Your task to perform on an android device: Go to network settings Image 0: 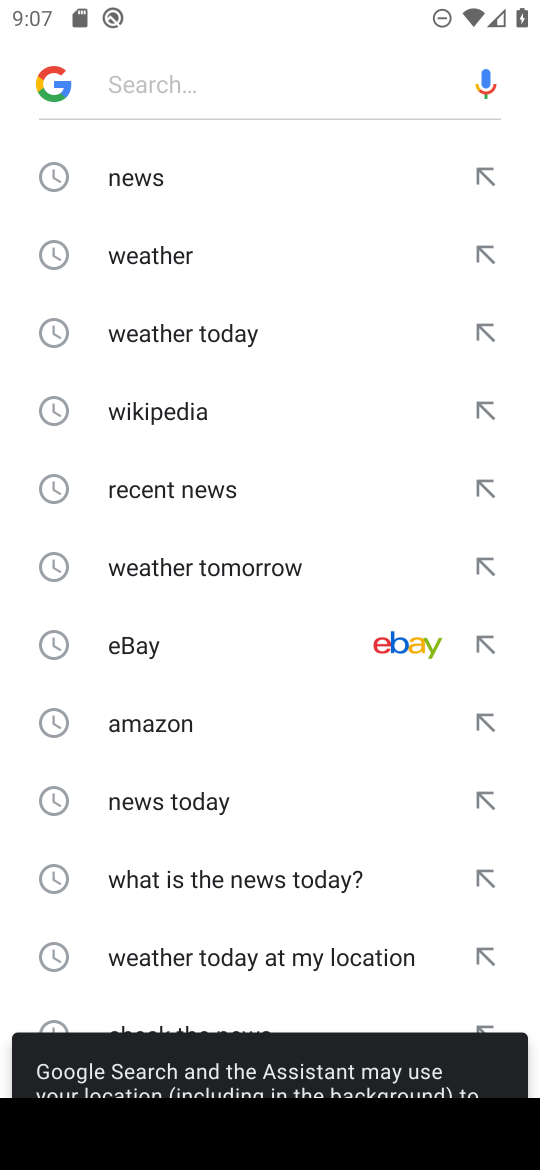
Step 0: press home button
Your task to perform on an android device: Go to network settings Image 1: 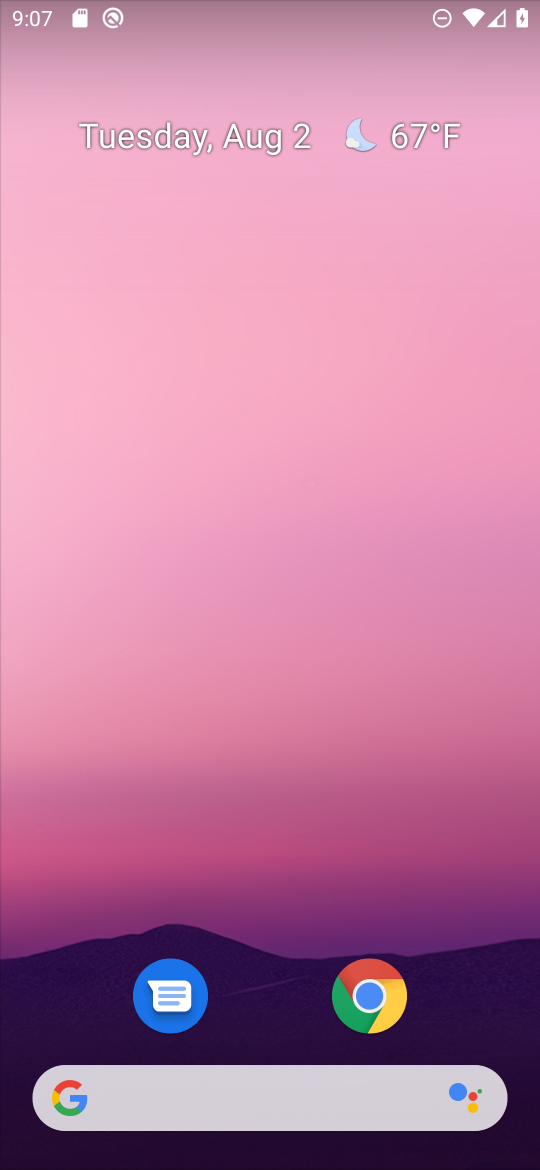
Step 1: drag from (289, 1024) to (119, 47)
Your task to perform on an android device: Go to network settings Image 2: 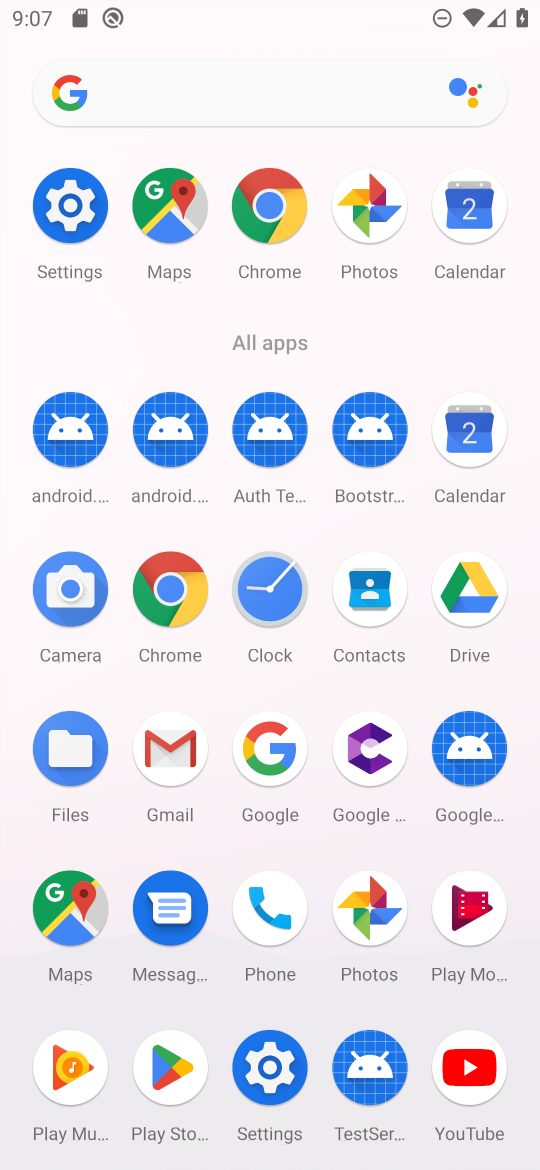
Step 2: click (273, 1066)
Your task to perform on an android device: Go to network settings Image 3: 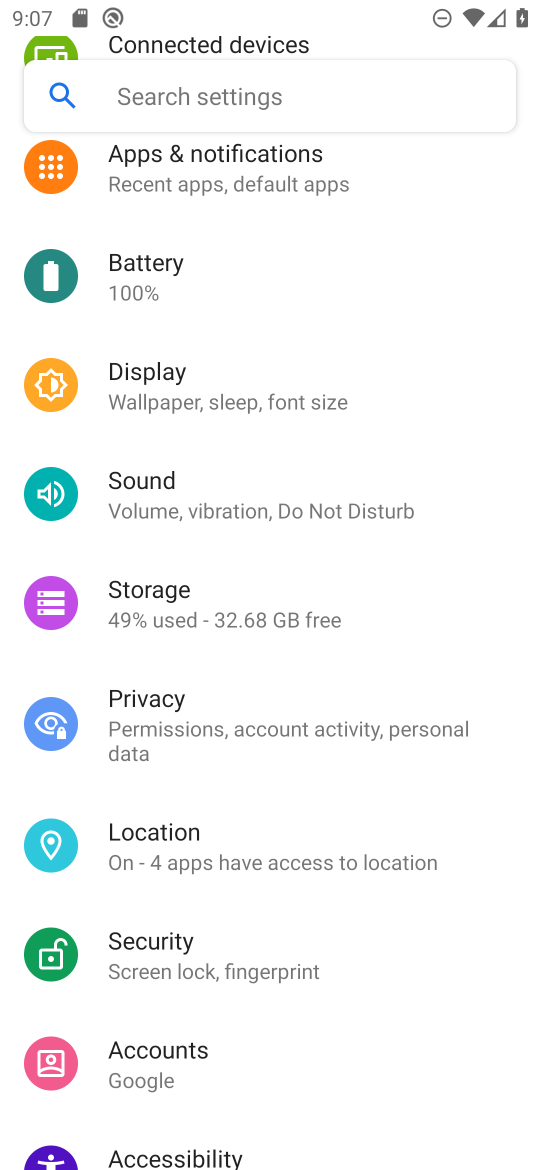
Step 3: drag from (178, 243) to (193, 878)
Your task to perform on an android device: Go to network settings Image 4: 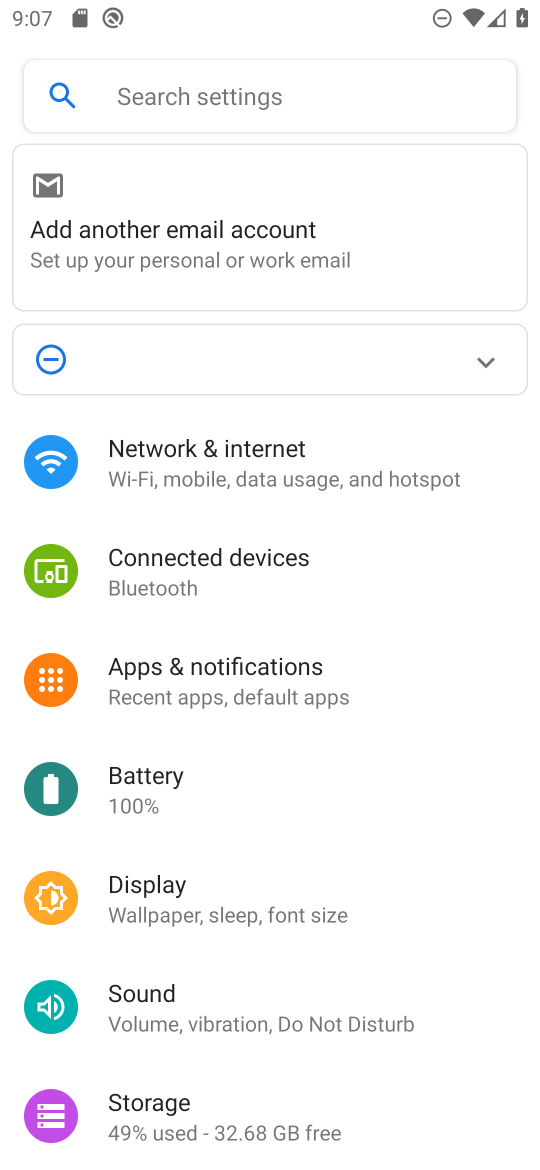
Step 4: click (218, 454)
Your task to perform on an android device: Go to network settings Image 5: 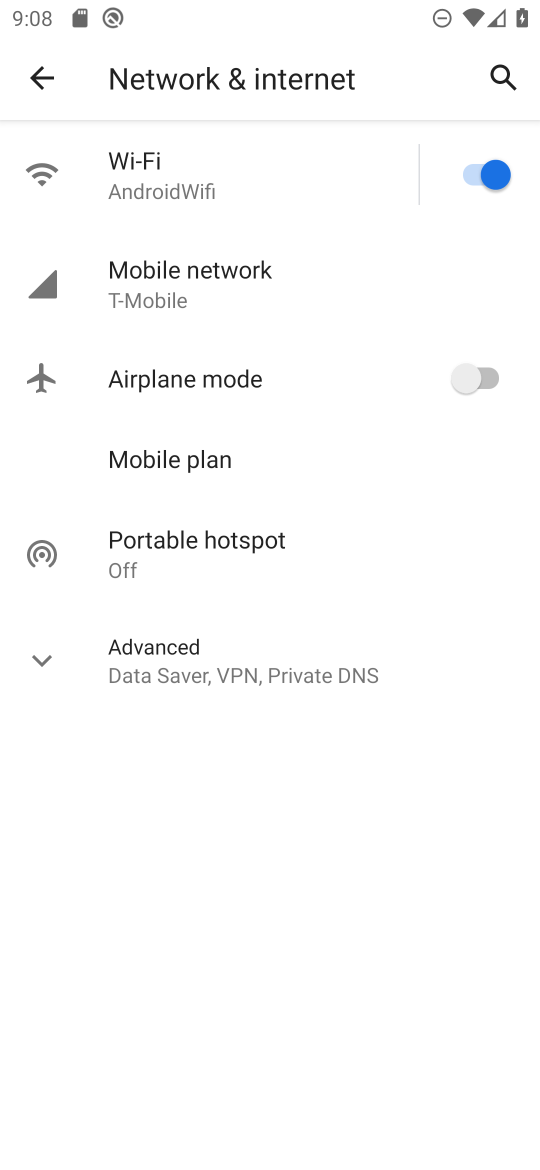
Step 5: task complete